Your task to perform on an android device: turn on the 12-hour format for clock Image 0: 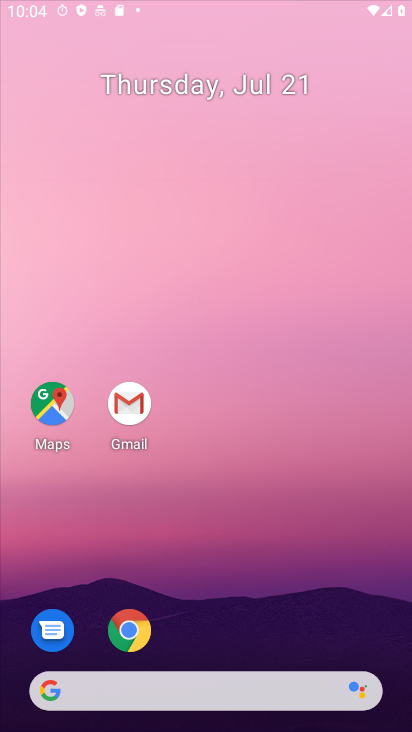
Step 0: drag from (274, 670) to (335, 304)
Your task to perform on an android device: turn on the 12-hour format for clock Image 1: 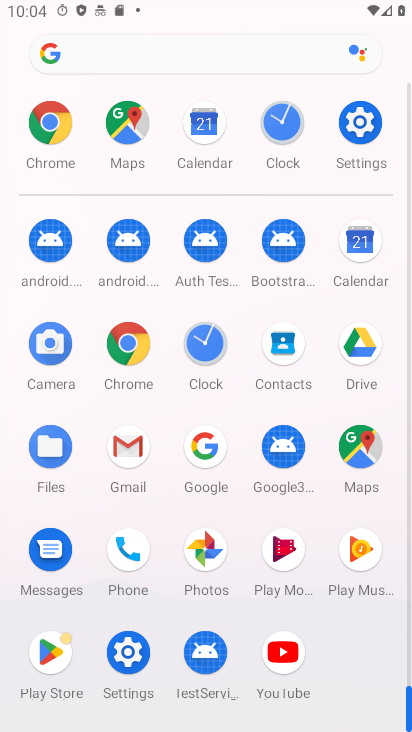
Step 1: click (194, 343)
Your task to perform on an android device: turn on the 12-hour format for clock Image 2: 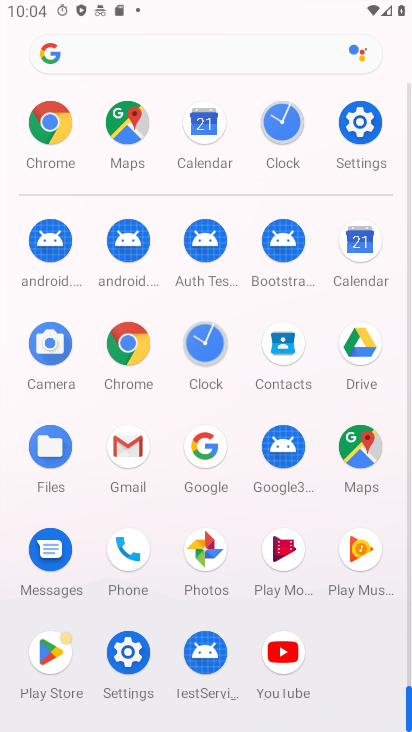
Step 2: click (198, 340)
Your task to perform on an android device: turn on the 12-hour format for clock Image 3: 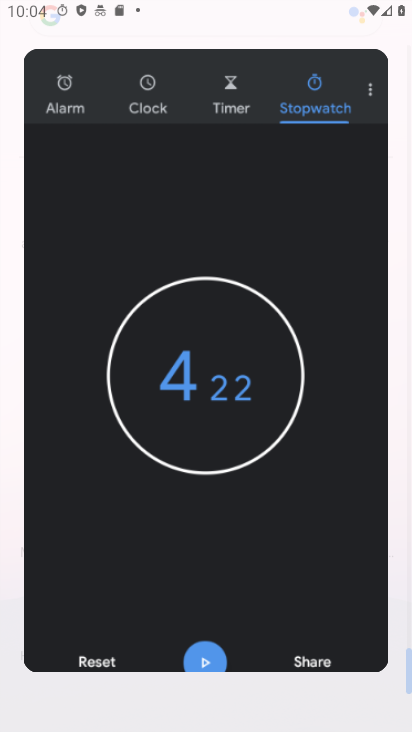
Step 3: click (198, 340)
Your task to perform on an android device: turn on the 12-hour format for clock Image 4: 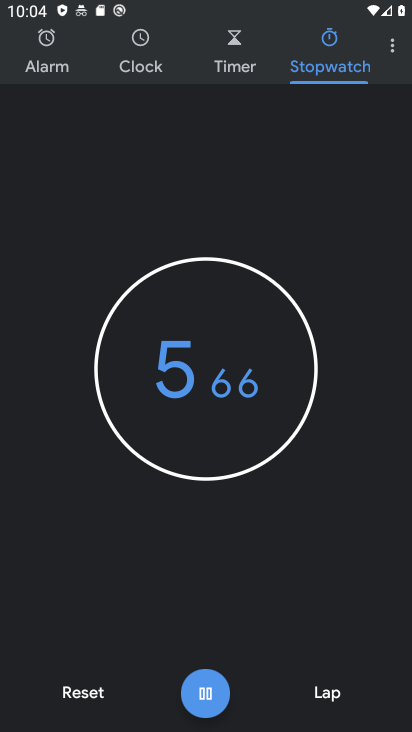
Step 4: click (387, 44)
Your task to perform on an android device: turn on the 12-hour format for clock Image 5: 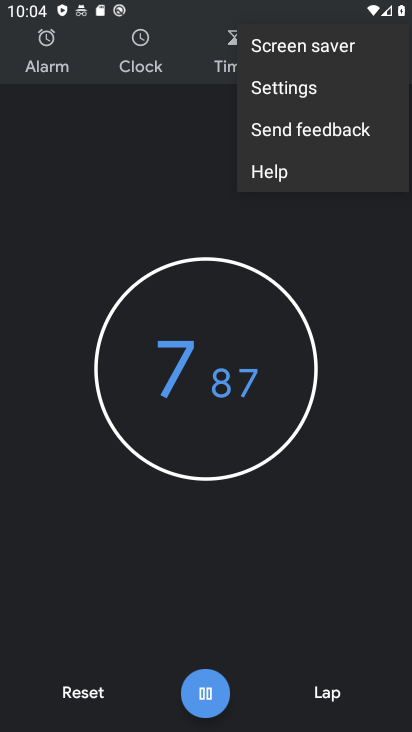
Step 5: click (294, 95)
Your task to perform on an android device: turn on the 12-hour format for clock Image 6: 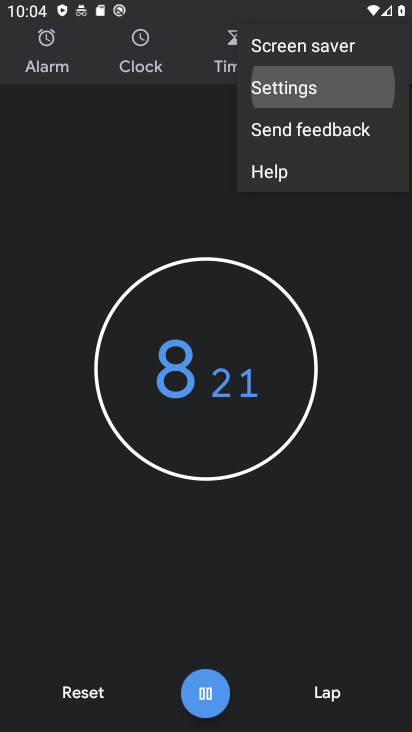
Step 6: click (294, 95)
Your task to perform on an android device: turn on the 12-hour format for clock Image 7: 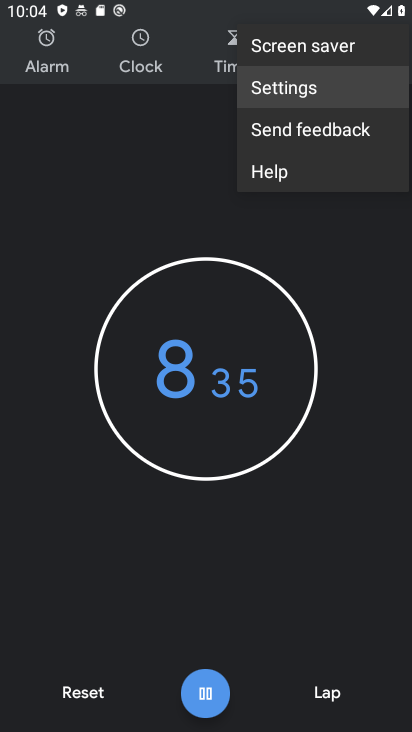
Step 7: click (292, 97)
Your task to perform on an android device: turn on the 12-hour format for clock Image 8: 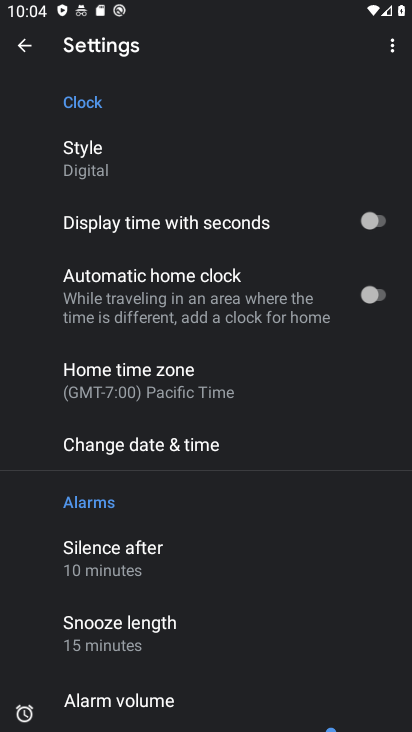
Step 8: click (138, 440)
Your task to perform on an android device: turn on the 12-hour format for clock Image 9: 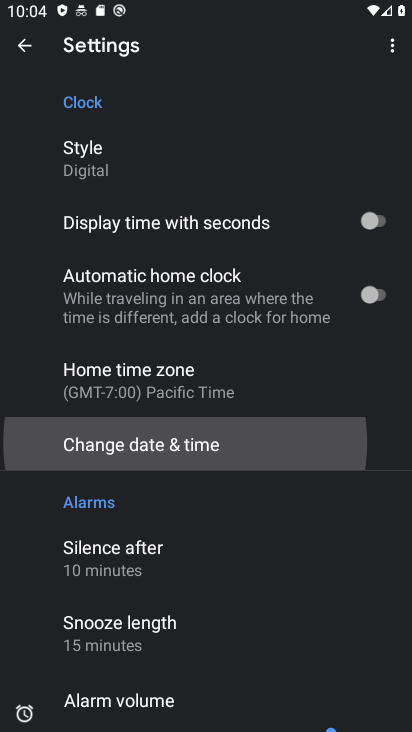
Step 9: click (139, 441)
Your task to perform on an android device: turn on the 12-hour format for clock Image 10: 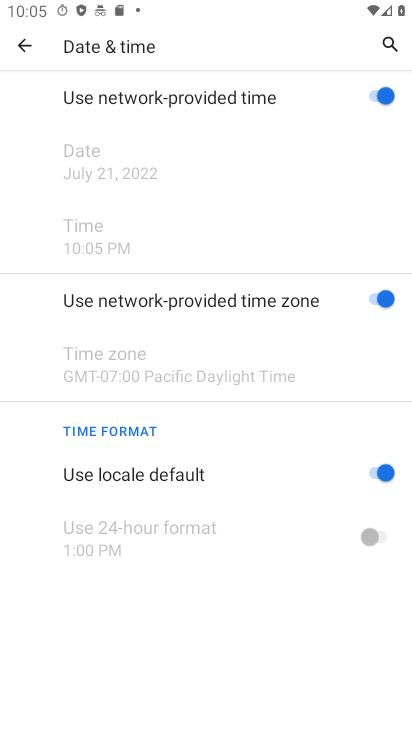
Step 10: task complete